Your task to perform on an android device: create a new album in the google photos Image 0: 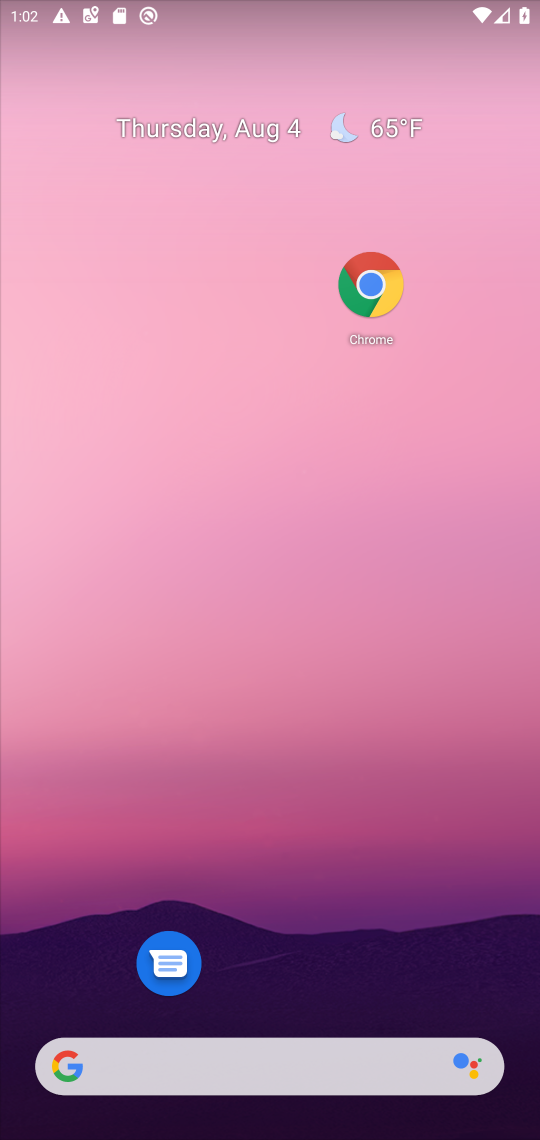
Step 0: drag from (293, 1032) to (290, 361)
Your task to perform on an android device: create a new album in the google photos Image 1: 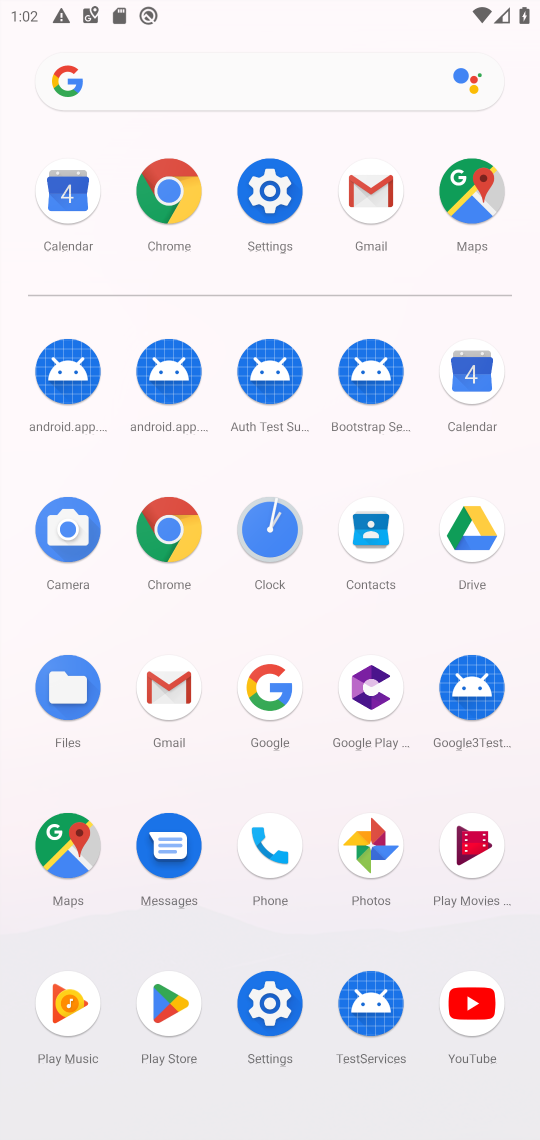
Step 1: click (371, 834)
Your task to perform on an android device: create a new album in the google photos Image 2: 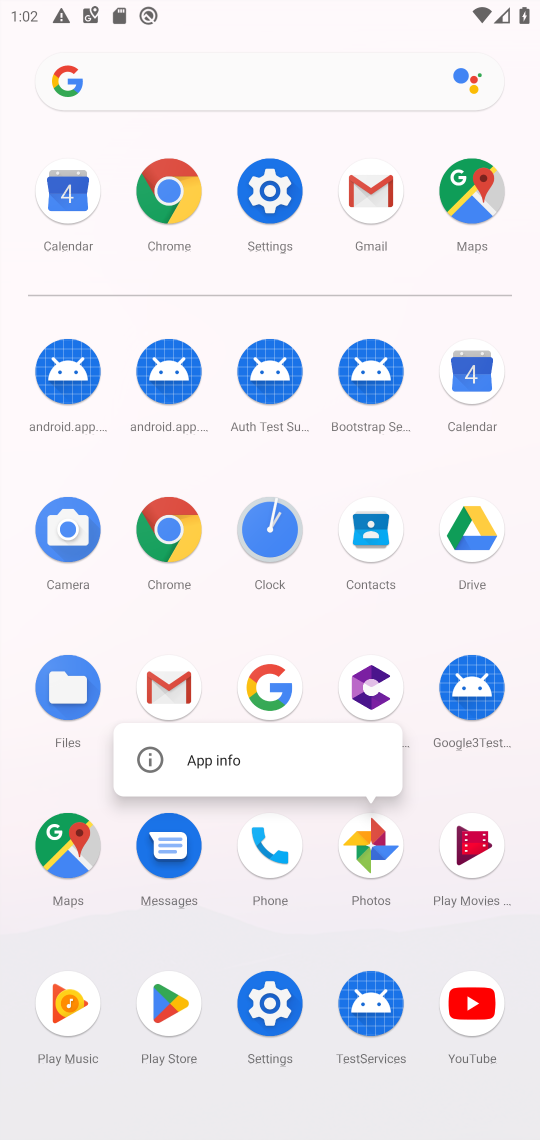
Step 2: click (371, 845)
Your task to perform on an android device: create a new album in the google photos Image 3: 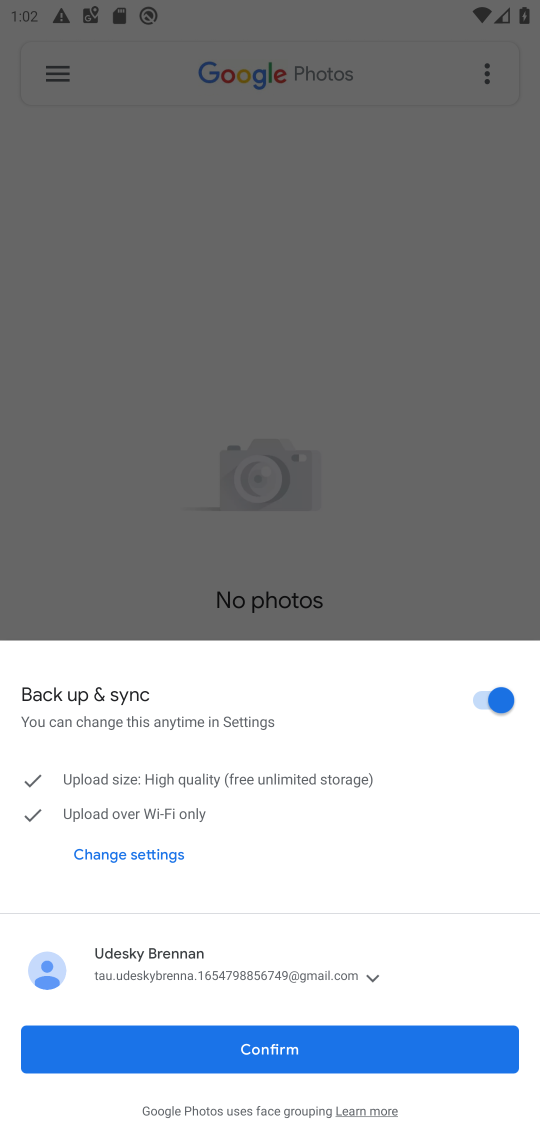
Step 3: click (327, 1027)
Your task to perform on an android device: create a new album in the google photos Image 4: 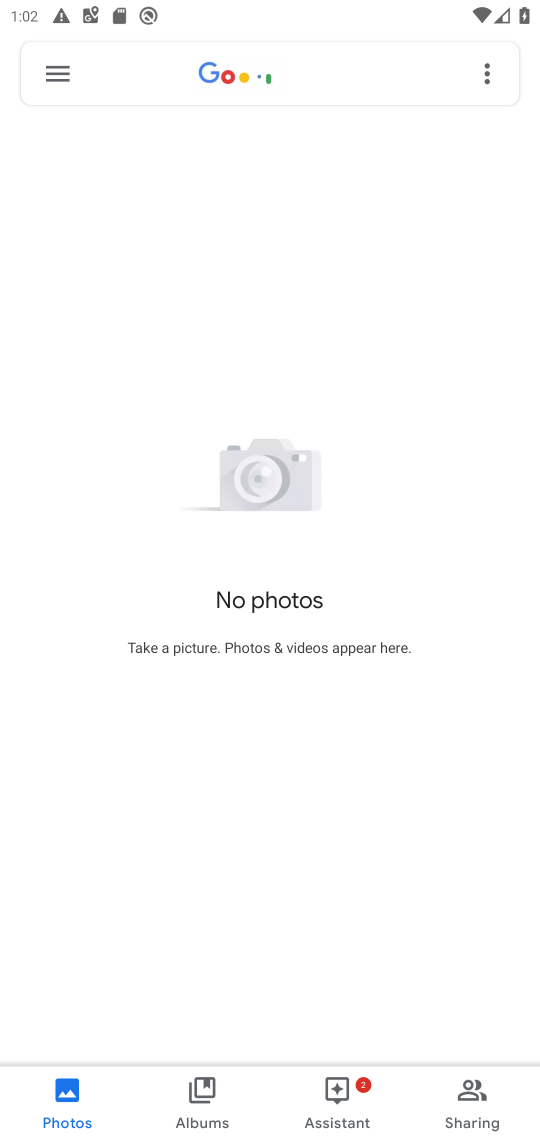
Step 4: click (207, 1075)
Your task to perform on an android device: create a new album in the google photos Image 5: 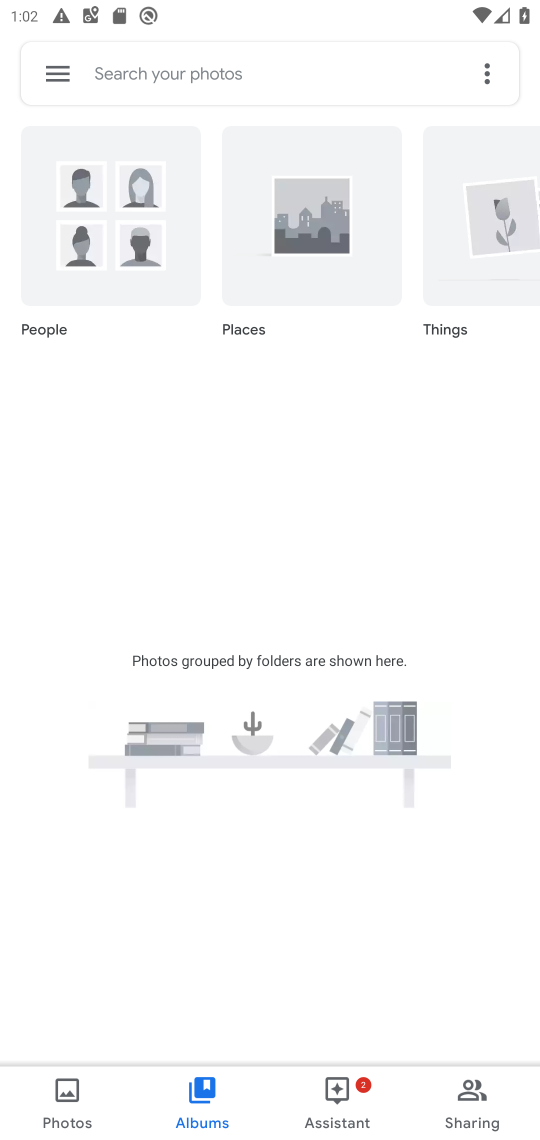
Step 5: click (77, 1102)
Your task to perform on an android device: create a new album in the google photos Image 6: 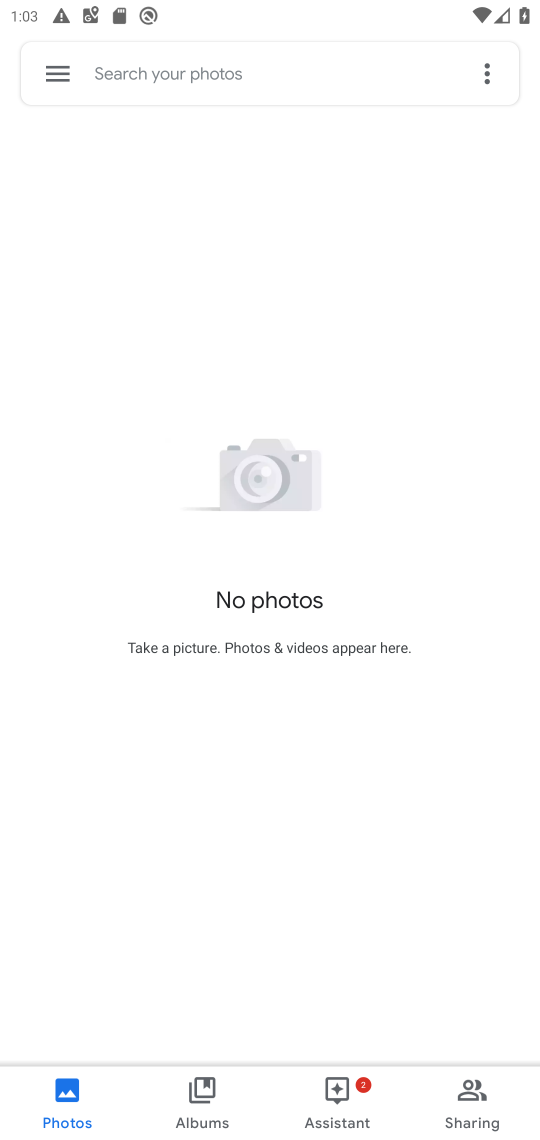
Step 6: task complete